Your task to perform on an android device: Show me productivity apps on the Play Store Image 0: 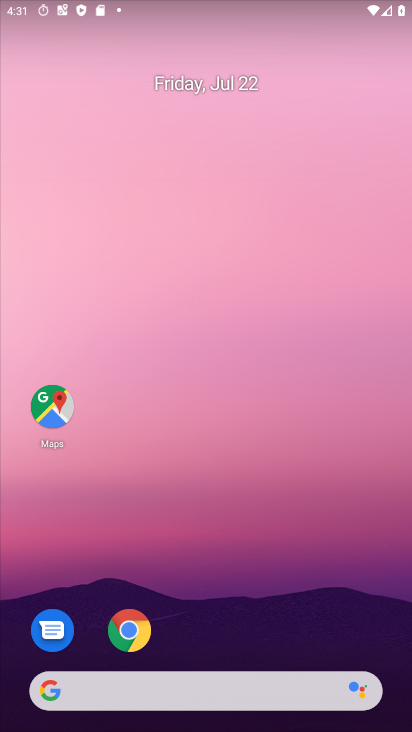
Step 0: drag from (275, 697) to (326, 68)
Your task to perform on an android device: Show me productivity apps on the Play Store Image 1: 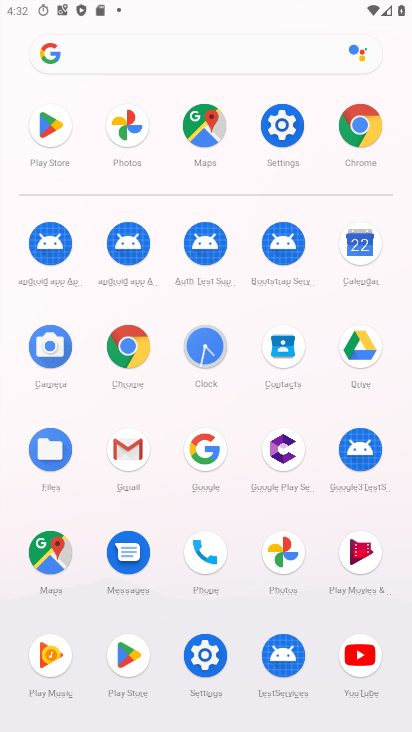
Step 1: click (122, 669)
Your task to perform on an android device: Show me productivity apps on the Play Store Image 2: 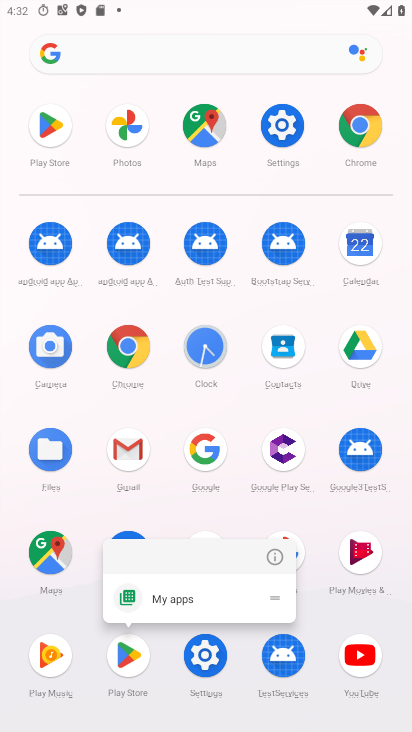
Step 2: click (146, 649)
Your task to perform on an android device: Show me productivity apps on the Play Store Image 3: 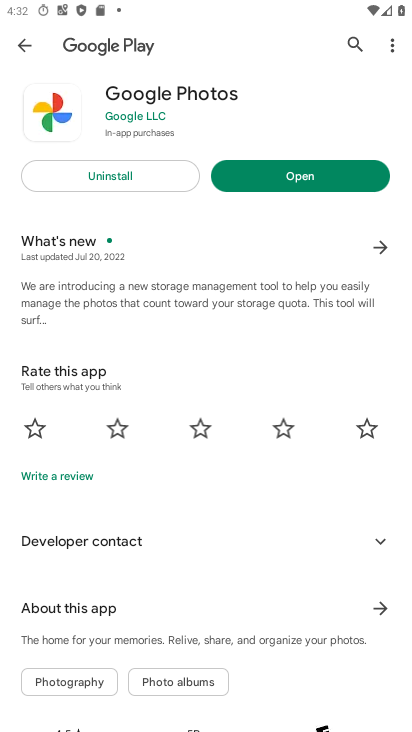
Step 3: press home button
Your task to perform on an android device: Show me productivity apps on the Play Store Image 4: 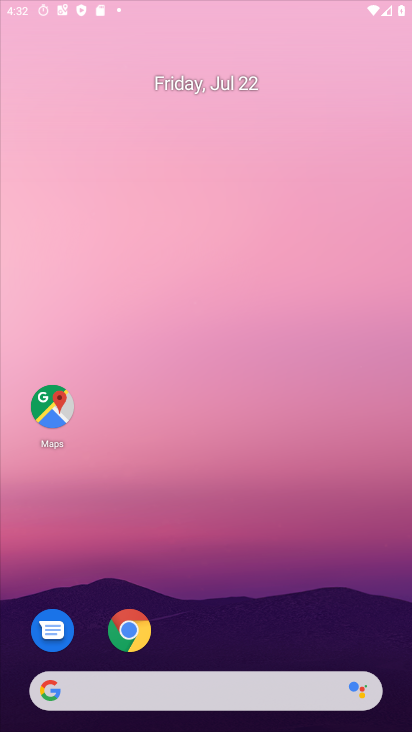
Step 4: drag from (278, 710) to (286, 1)
Your task to perform on an android device: Show me productivity apps on the Play Store Image 5: 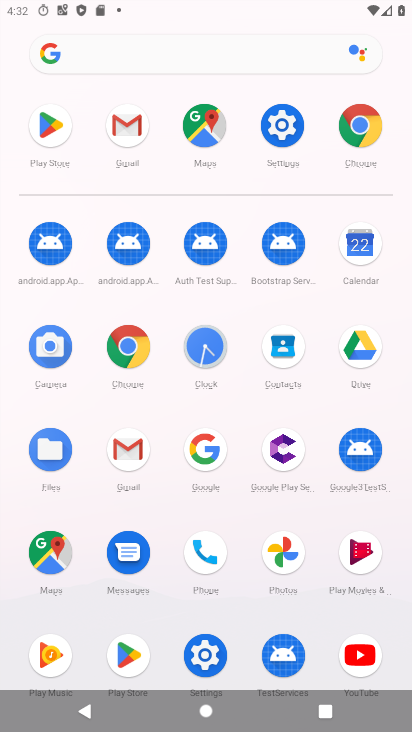
Step 5: click (116, 642)
Your task to perform on an android device: Show me productivity apps on the Play Store Image 6: 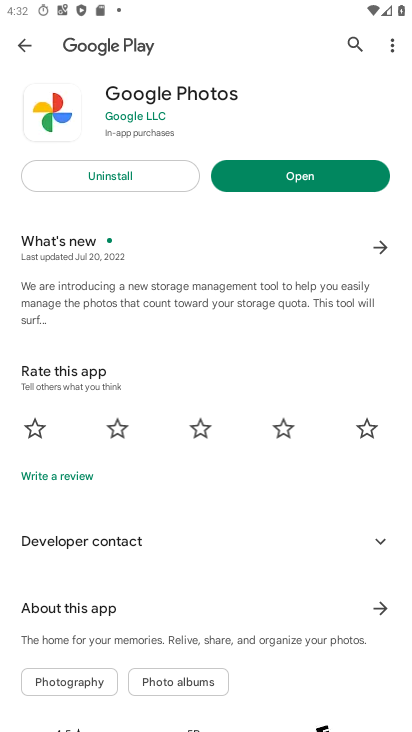
Step 6: press back button
Your task to perform on an android device: Show me productivity apps on the Play Store Image 7: 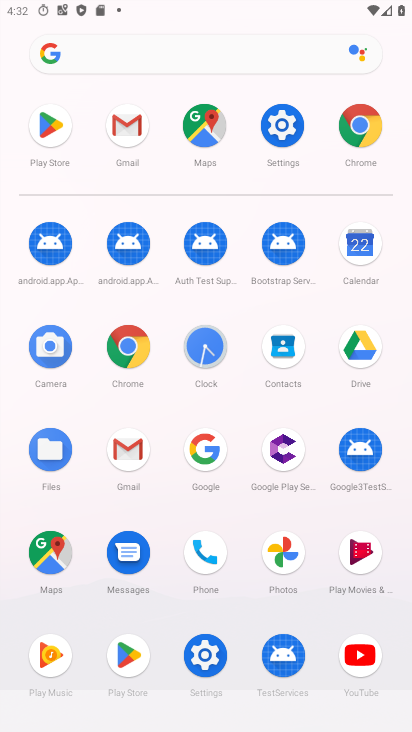
Step 7: click (126, 662)
Your task to perform on an android device: Show me productivity apps on the Play Store Image 8: 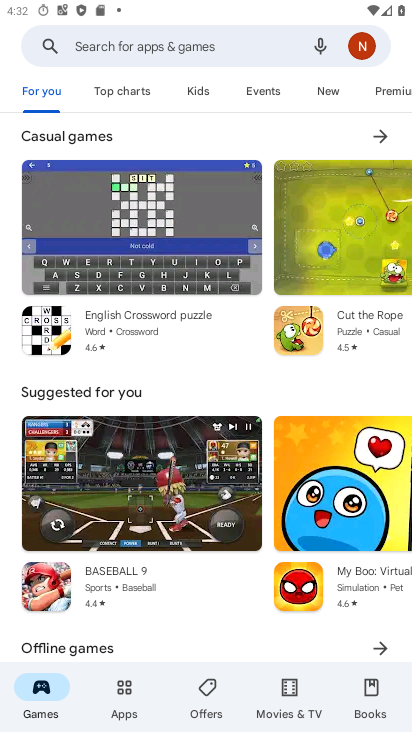
Step 8: click (122, 682)
Your task to perform on an android device: Show me productivity apps on the Play Store Image 9: 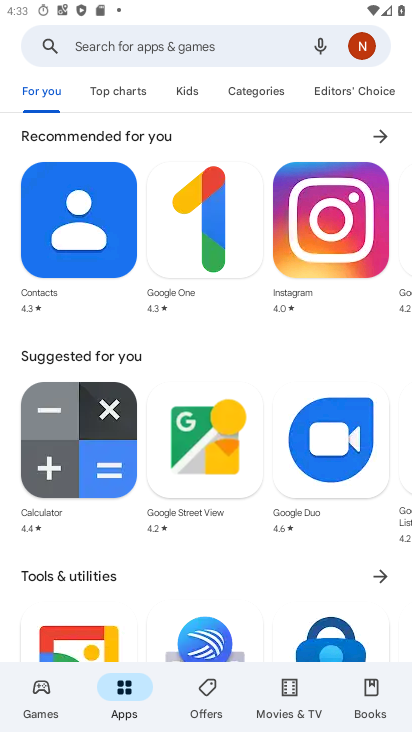
Step 9: drag from (190, 456) to (217, 65)
Your task to perform on an android device: Show me productivity apps on the Play Store Image 10: 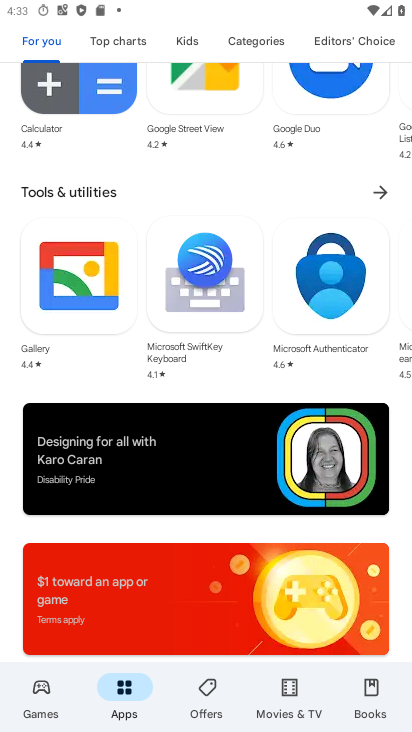
Step 10: drag from (213, 592) to (193, 9)
Your task to perform on an android device: Show me productivity apps on the Play Store Image 11: 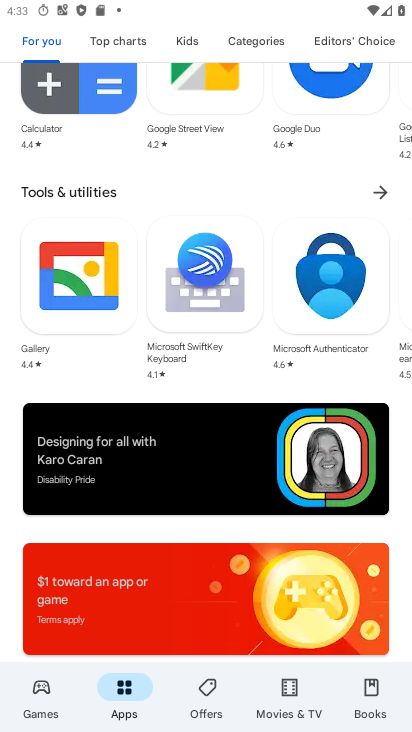
Step 11: drag from (319, 536) to (348, 52)
Your task to perform on an android device: Show me productivity apps on the Play Store Image 12: 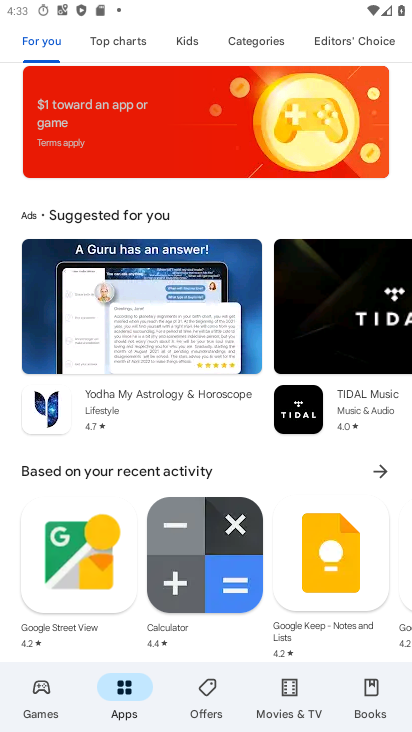
Step 12: drag from (220, 651) to (261, 94)
Your task to perform on an android device: Show me productivity apps on the Play Store Image 13: 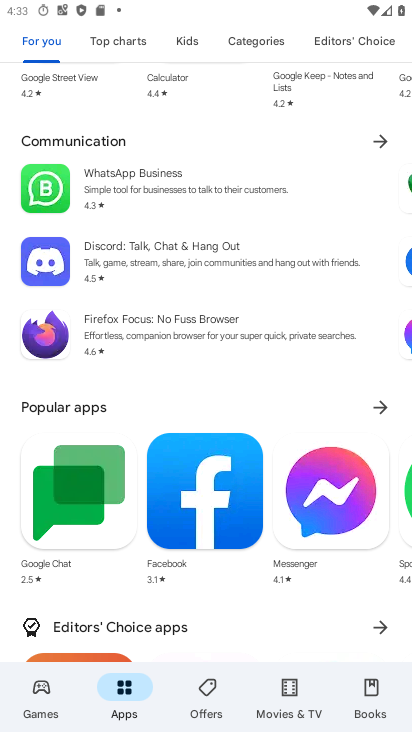
Step 13: drag from (228, 632) to (257, 96)
Your task to perform on an android device: Show me productivity apps on the Play Store Image 14: 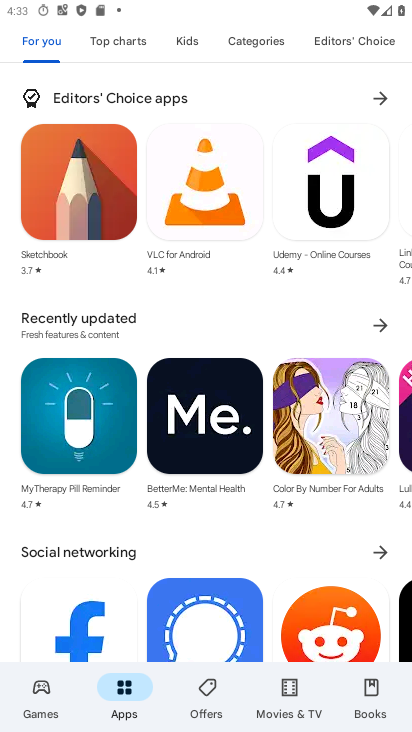
Step 14: drag from (172, 544) to (217, 8)
Your task to perform on an android device: Show me productivity apps on the Play Store Image 15: 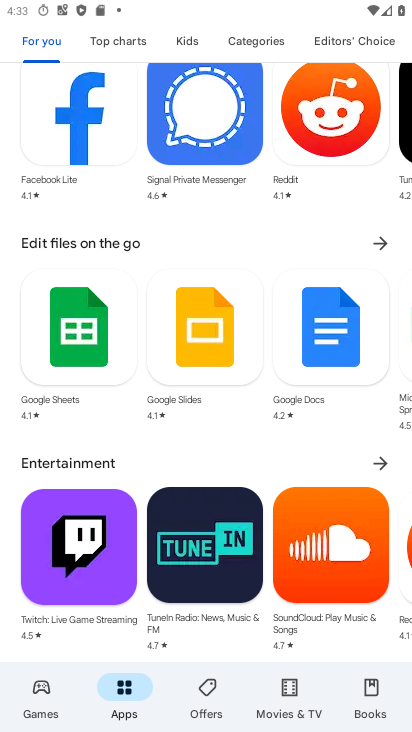
Step 15: drag from (137, 479) to (171, 94)
Your task to perform on an android device: Show me productivity apps on the Play Store Image 16: 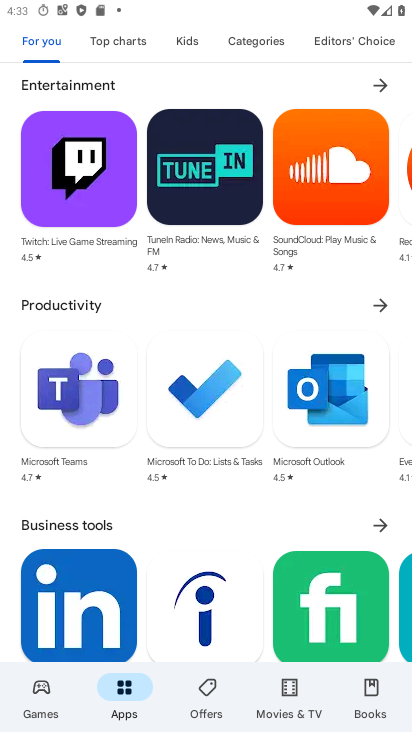
Step 16: click (377, 303)
Your task to perform on an android device: Show me productivity apps on the Play Store Image 17: 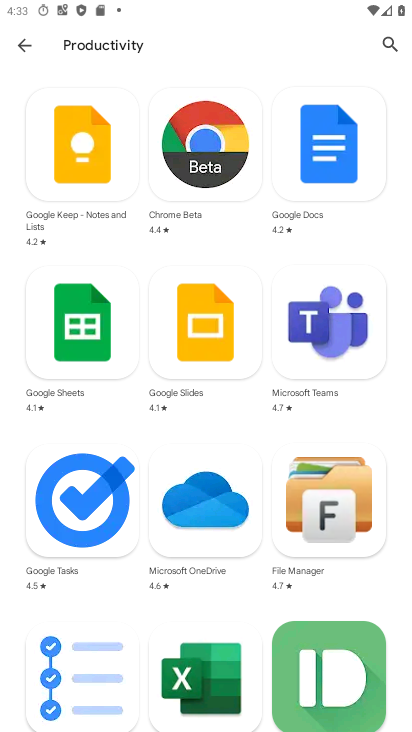
Step 17: task complete